Your task to perform on an android device: Show me recent news Image 0: 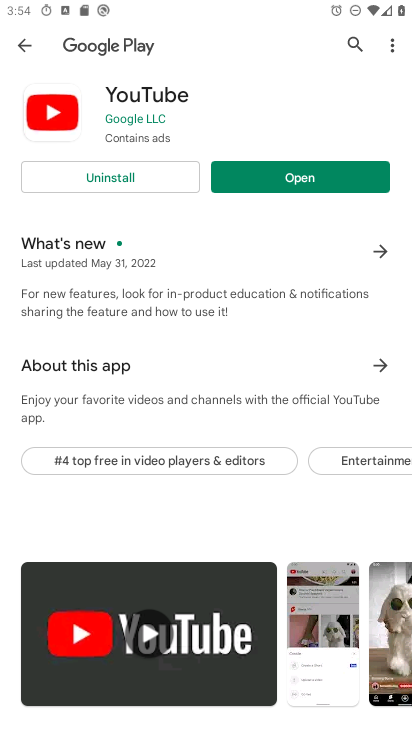
Step 0: drag from (331, 607) to (335, 340)
Your task to perform on an android device: Show me recent news Image 1: 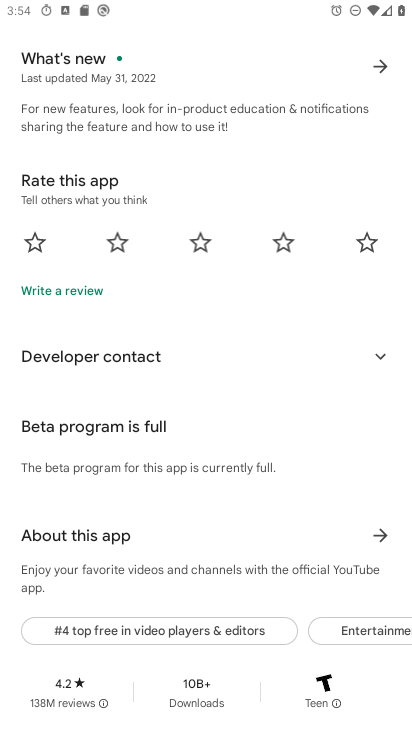
Step 1: press home button
Your task to perform on an android device: Show me recent news Image 2: 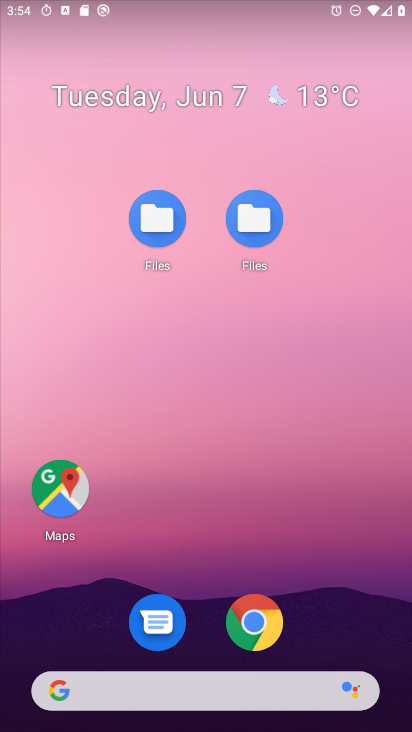
Step 2: click (248, 681)
Your task to perform on an android device: Show me recent news Image 3: 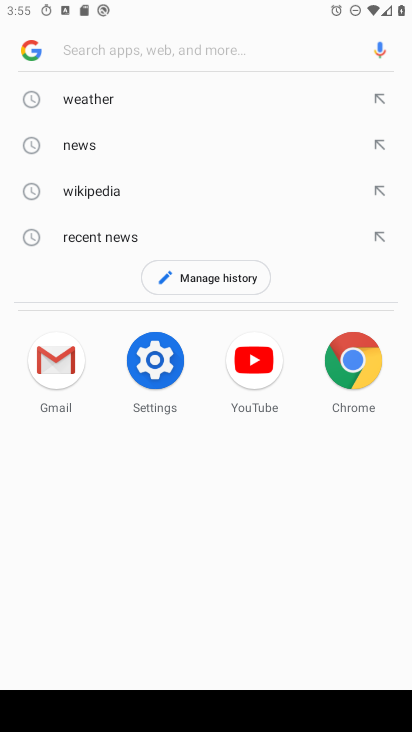
Step 3: type "recent news"
Your task to perform on an android device: Show me recent news Image 4: 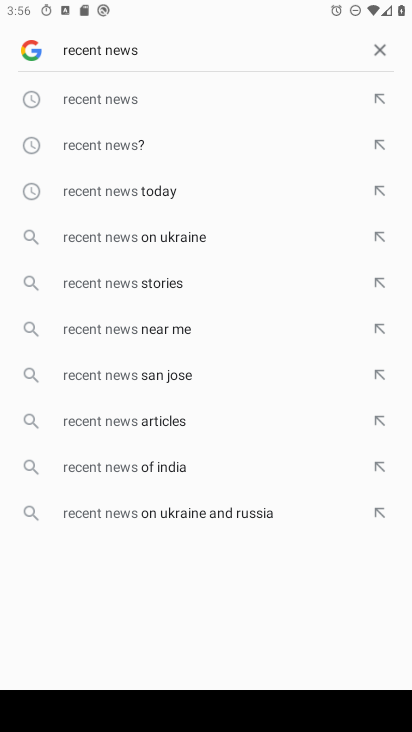
Step 4: click (148, 101)
Your task to perform on an android device: Show me recent news Image 5: 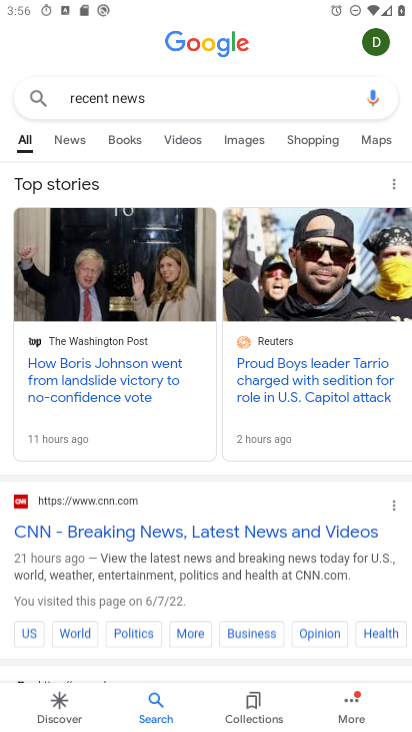
Step 5: task complete